Your task to perform on an android device: Clear the cart on newegg. Image 0: 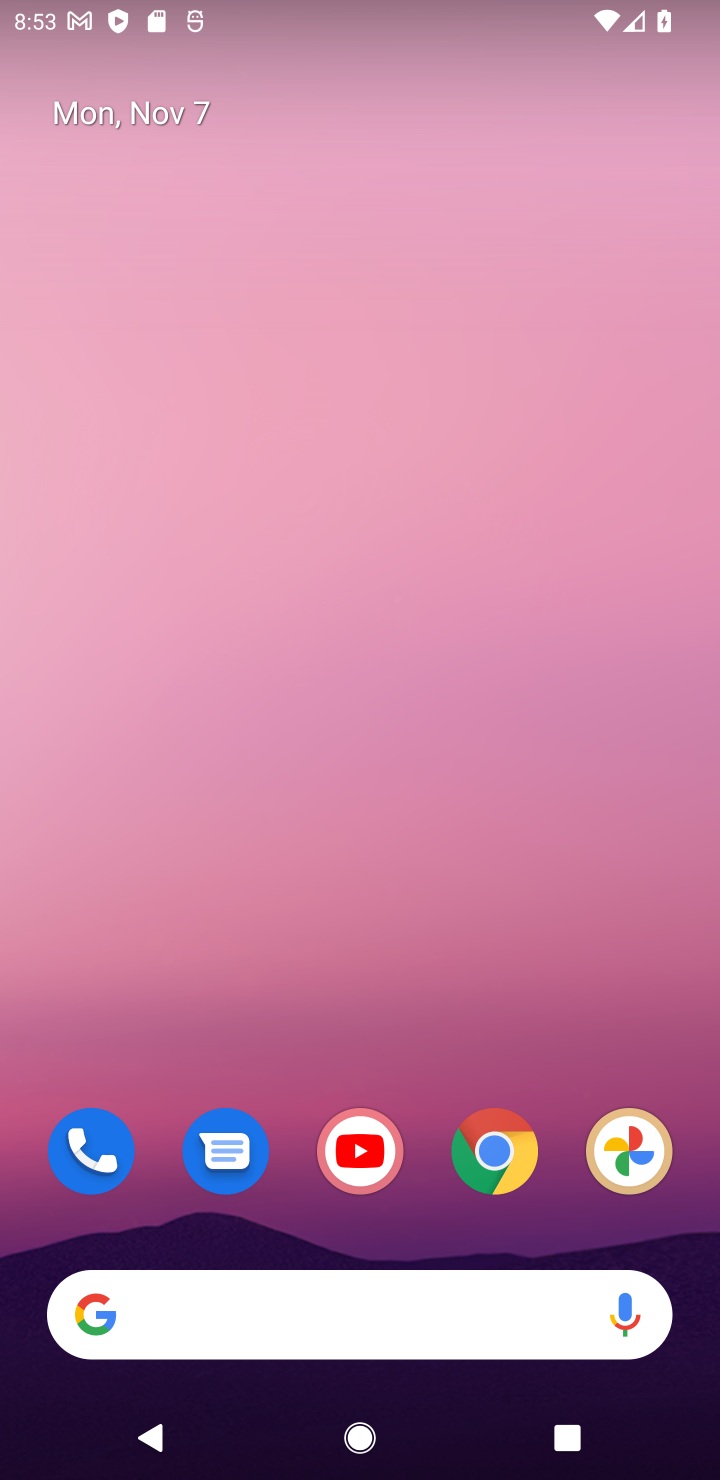
Step 0: click (477, 1153)
Your task to perform on an android device: Clear the cart on newegg. Image 1: 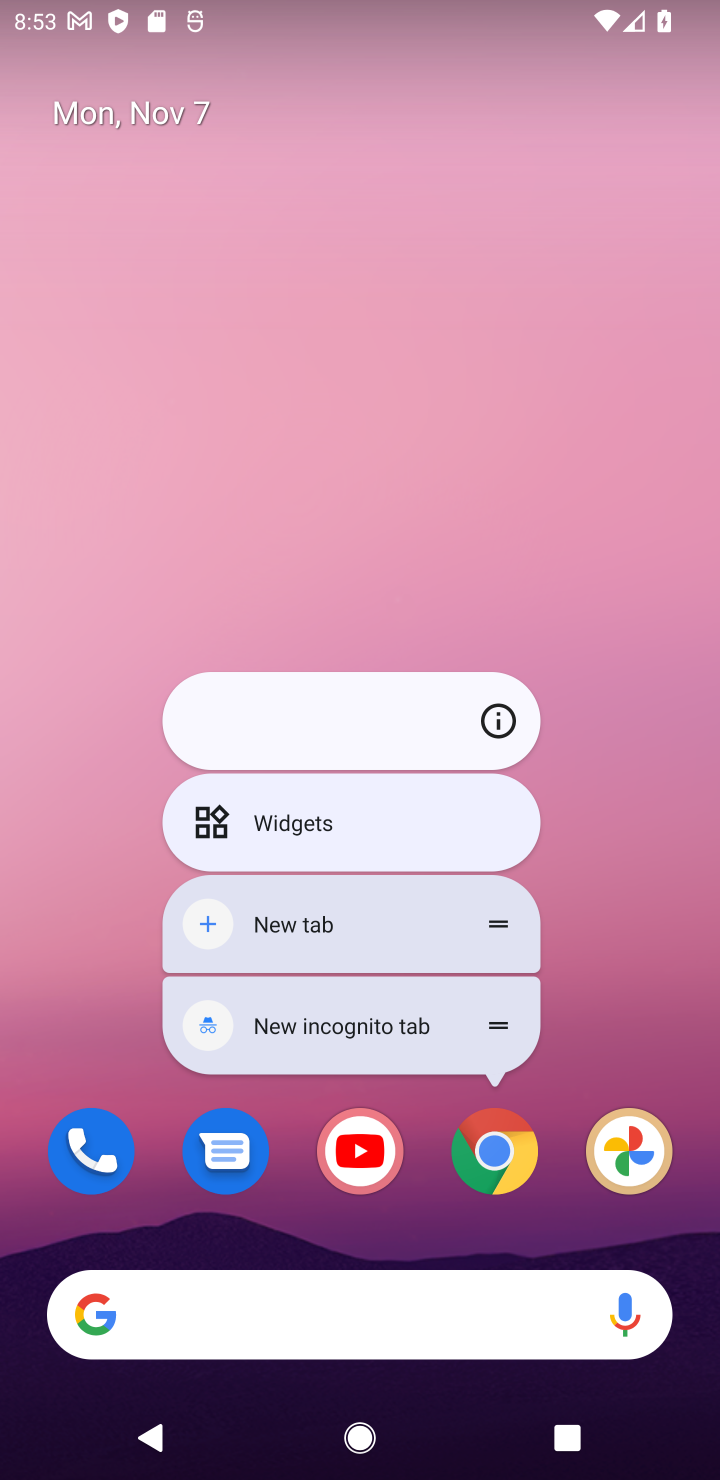
Step 1: click (494, 1153)
Your task to perform on an android device: Clear the cart on newegg. Image 2: 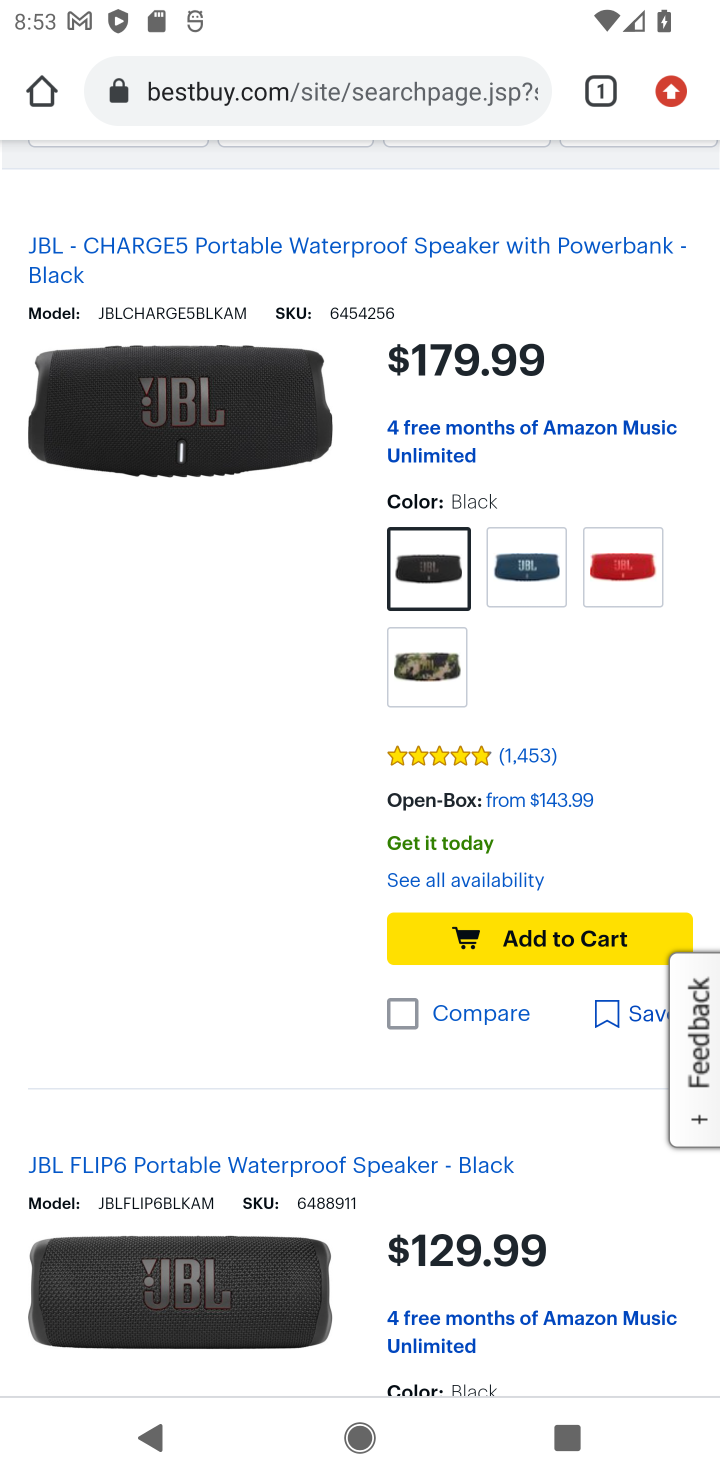
Step 2: click (378, 81)
Your task to perform on an android device: Clear the cart on newegg. Image 3: 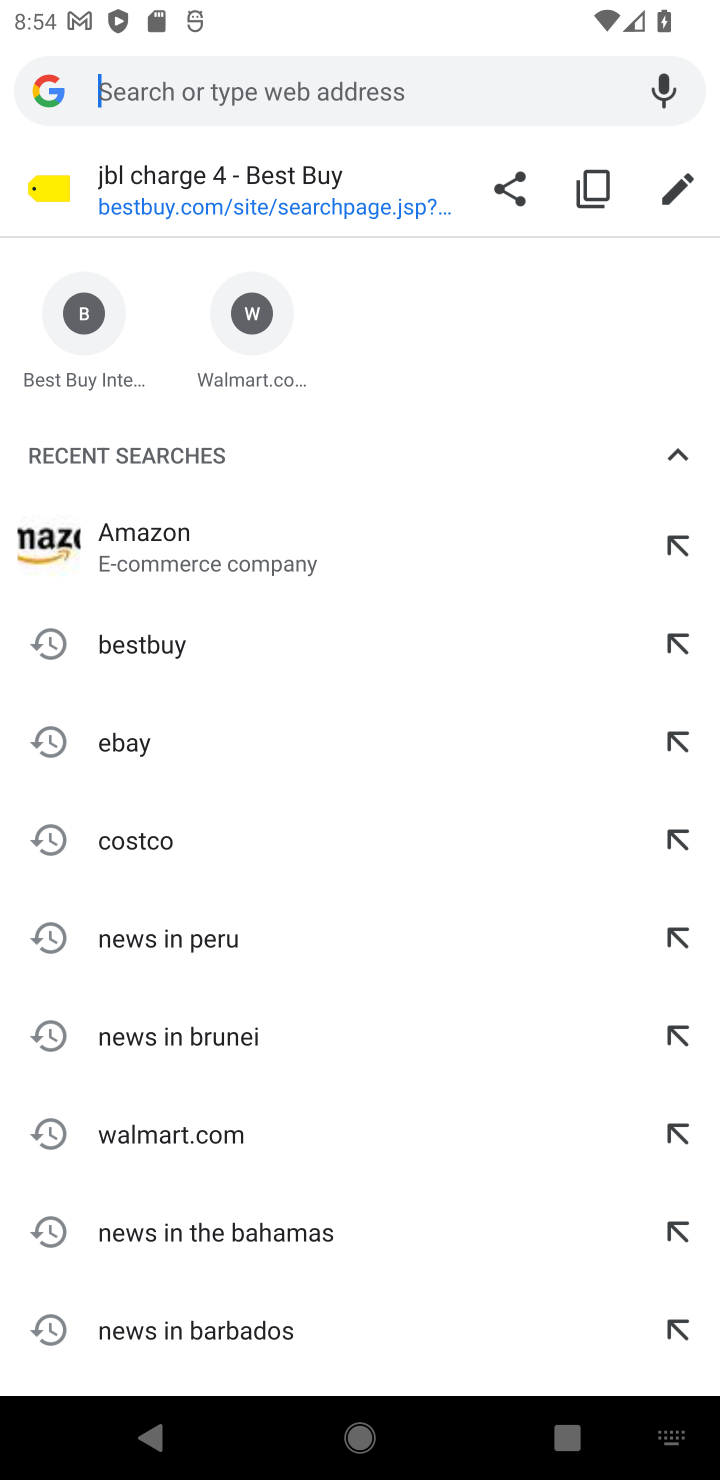
Step 3: drag from (323, 1479) to (719, 1297)
Your task to perform on an android device: Clear the cart on newegg. Image 4: 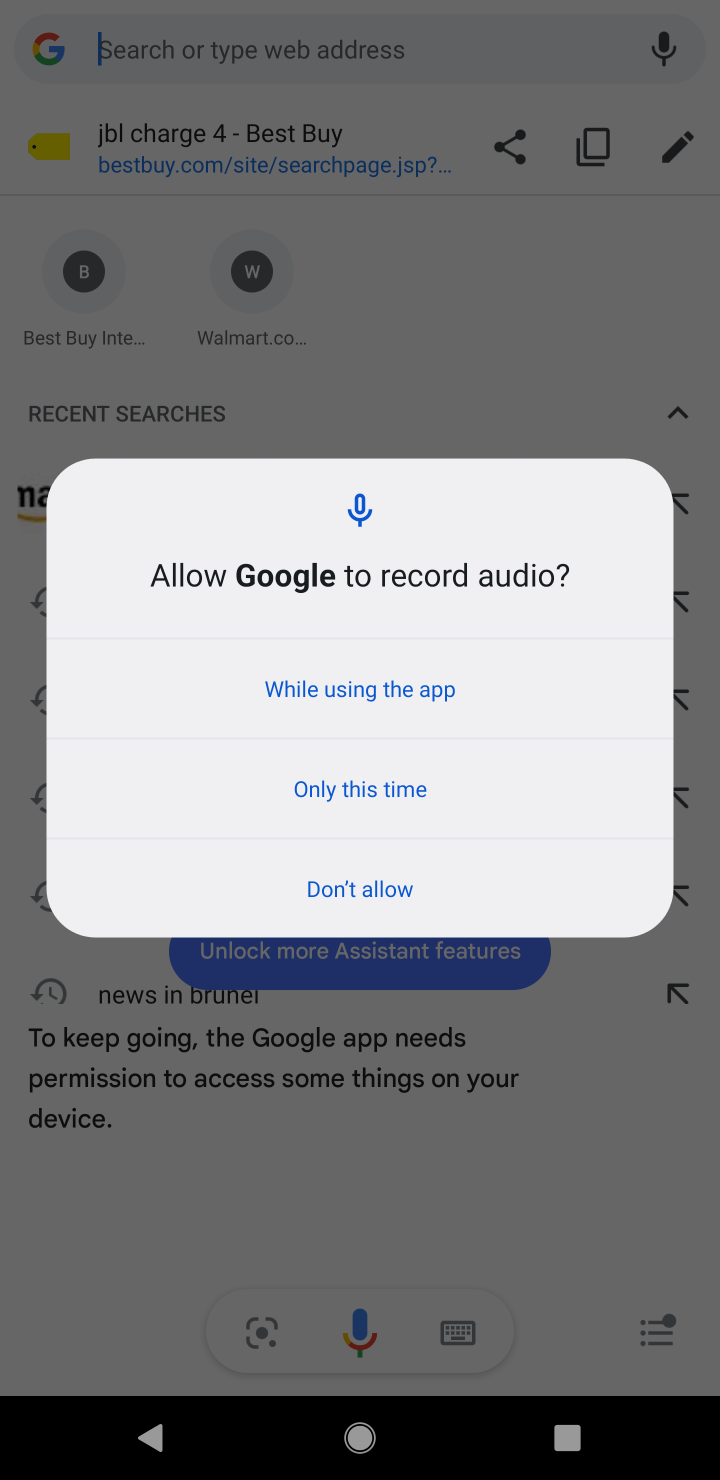
Step 4: click (588, 1075)
Your task to perform on an android device: Clear the cart on newegg. Image 5: 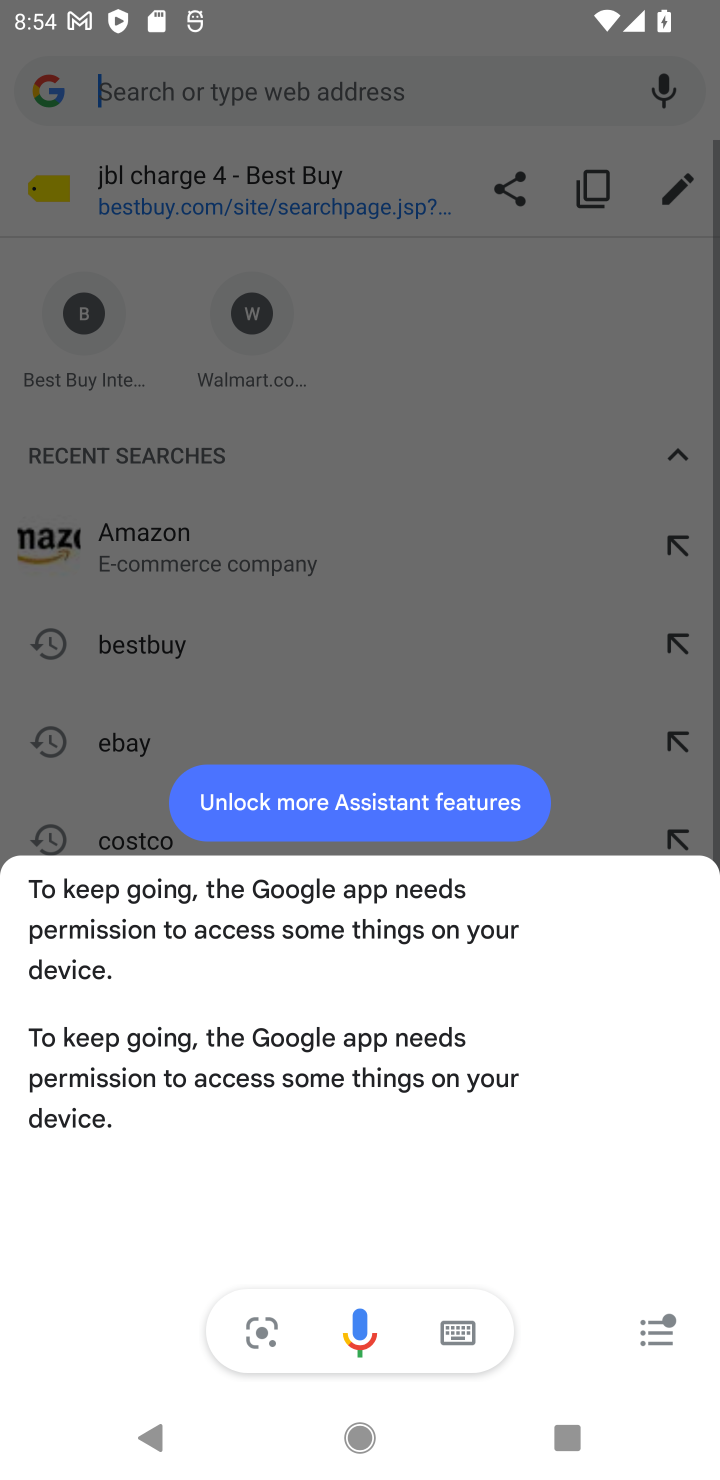
Step 5: click (362, 34)
Your task to perform on an android device: Clear the cart on newegg. Image 6: 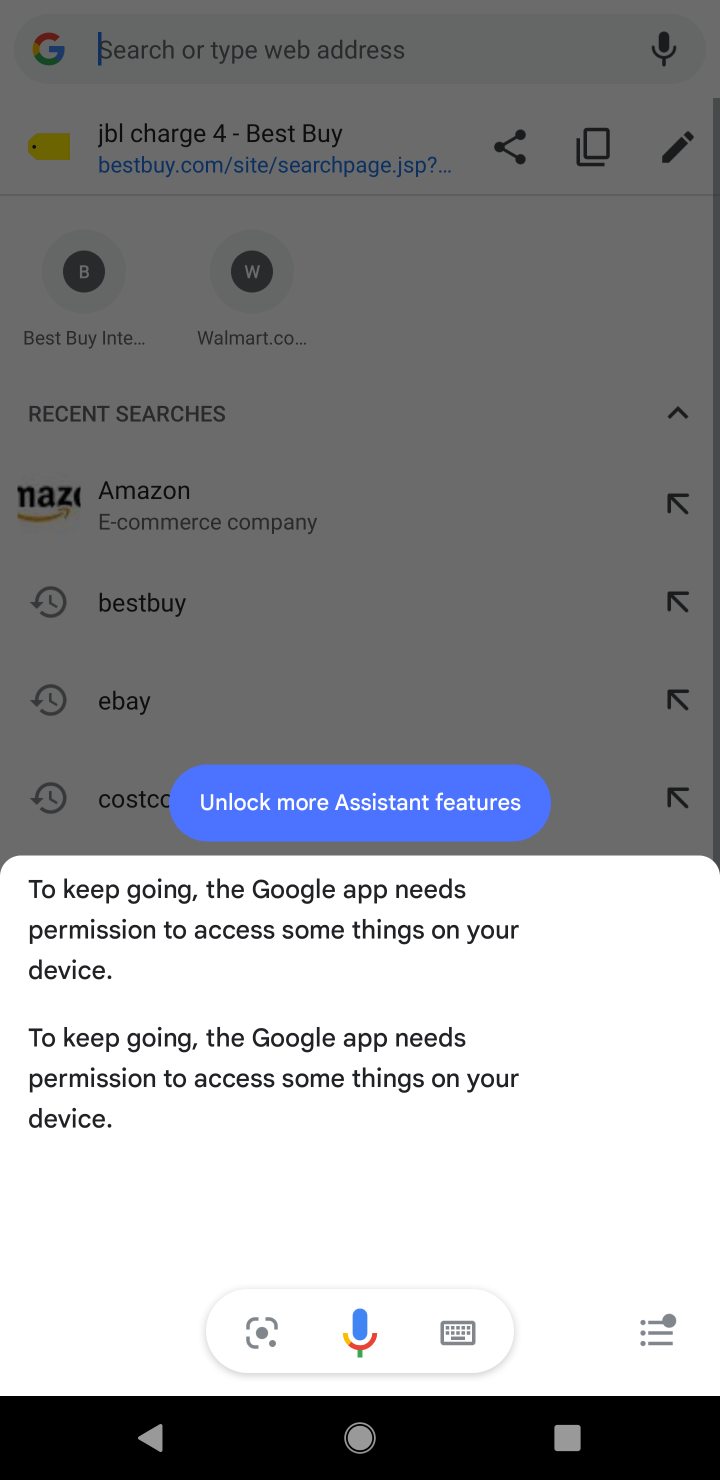
Step 6: click (362, 23)
Your task to perform on an android device: Clear the cart on newegg. Image 7: 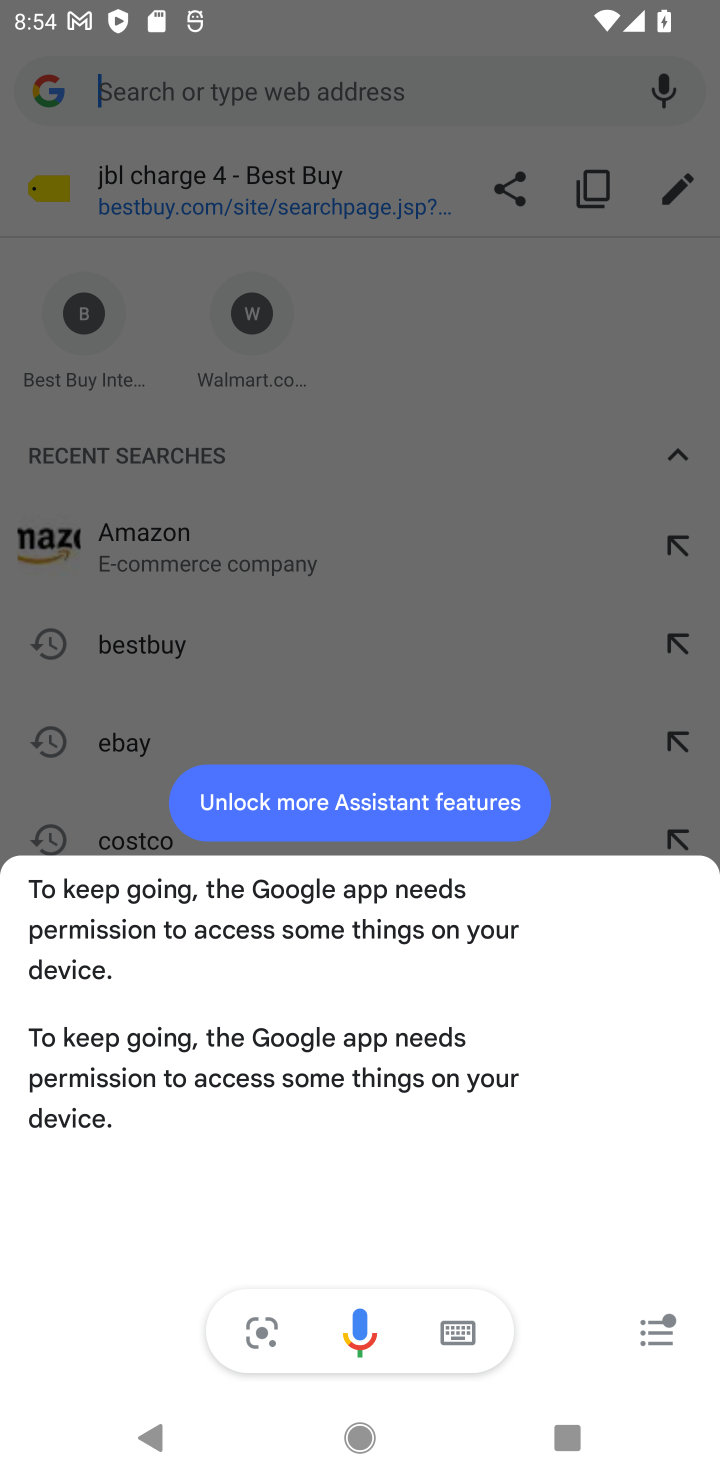
Step 7: drag from (285, 632) to (482, 233)
Your task to perform on an android device: Clear the cart on newegg. Image 8: 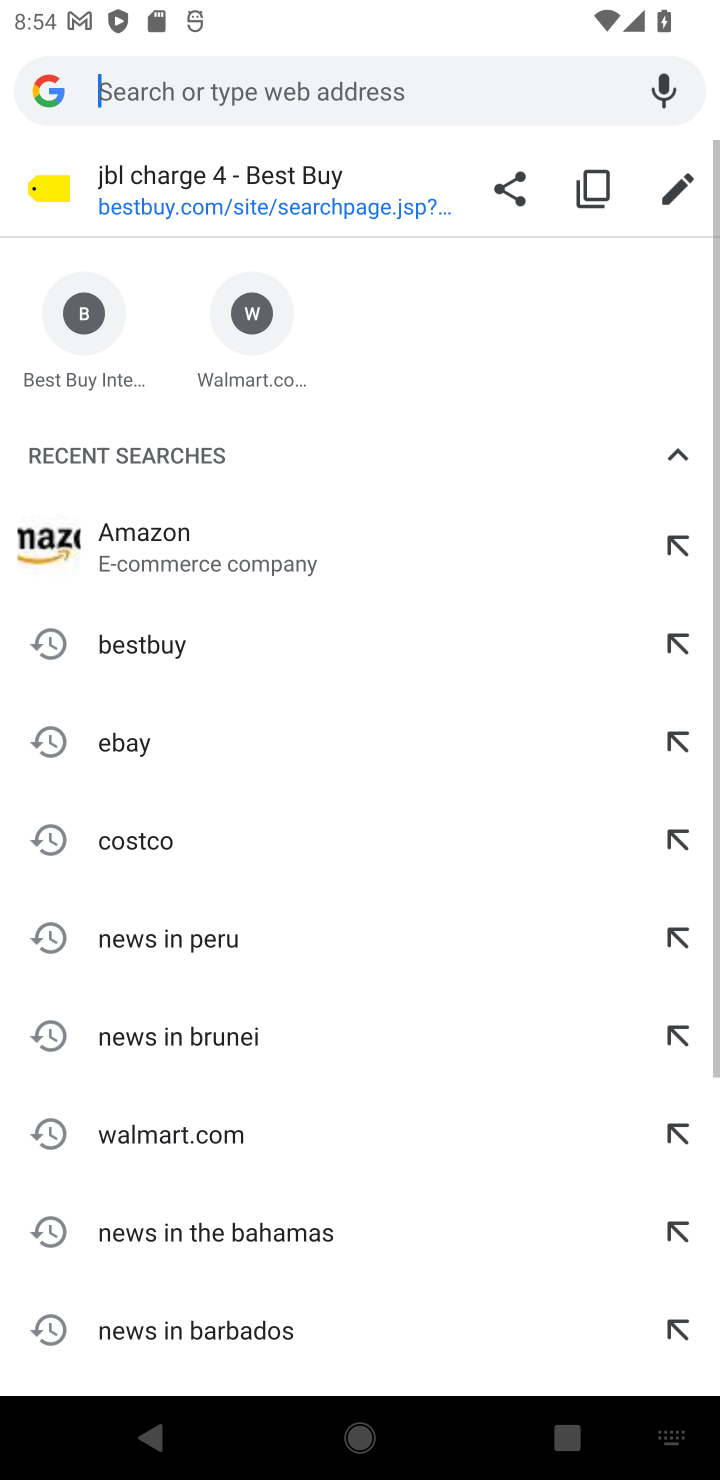
Step 8: click (391, 89)
Your task to perform on an android device: Clear the cart on newegg. Image 9: 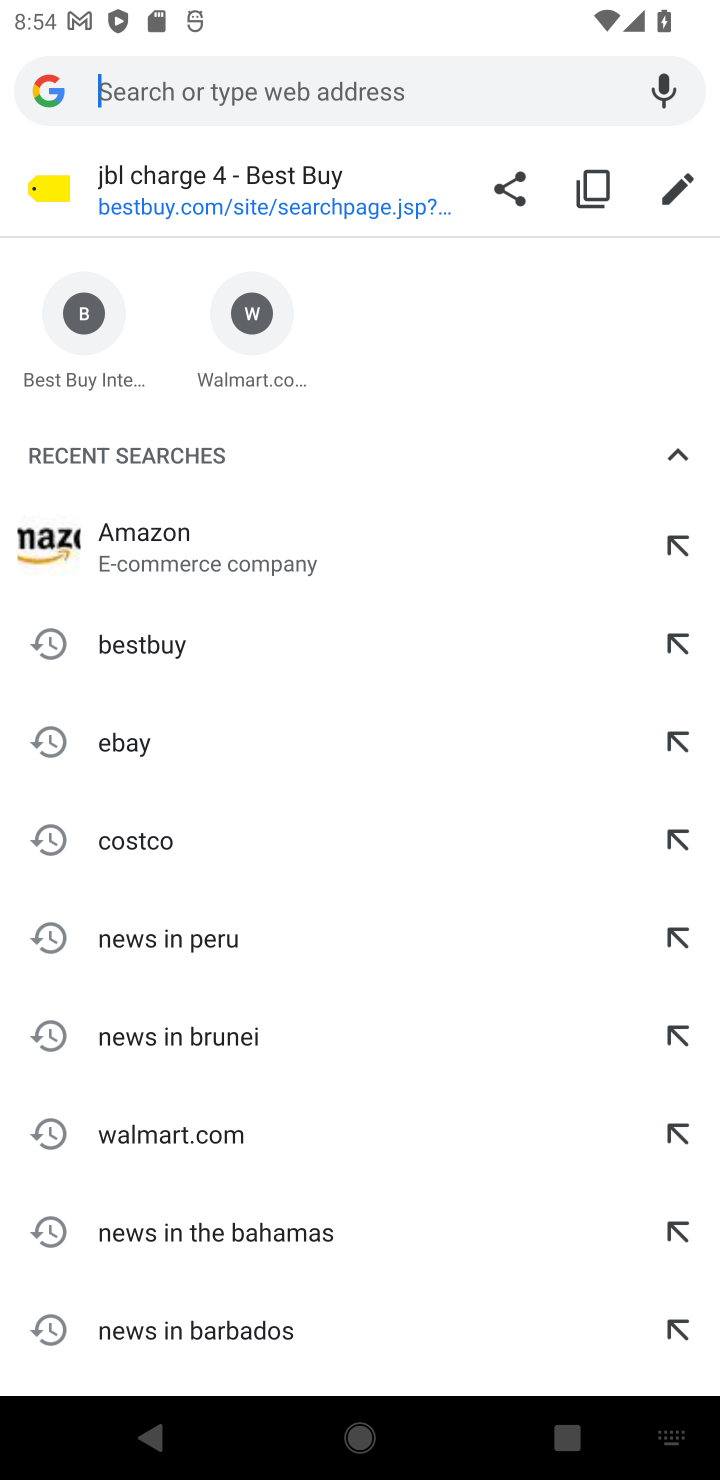
Step 9: type "newegg"
Your task to perform on an android device: Clear the cart on newegg. Image 10: 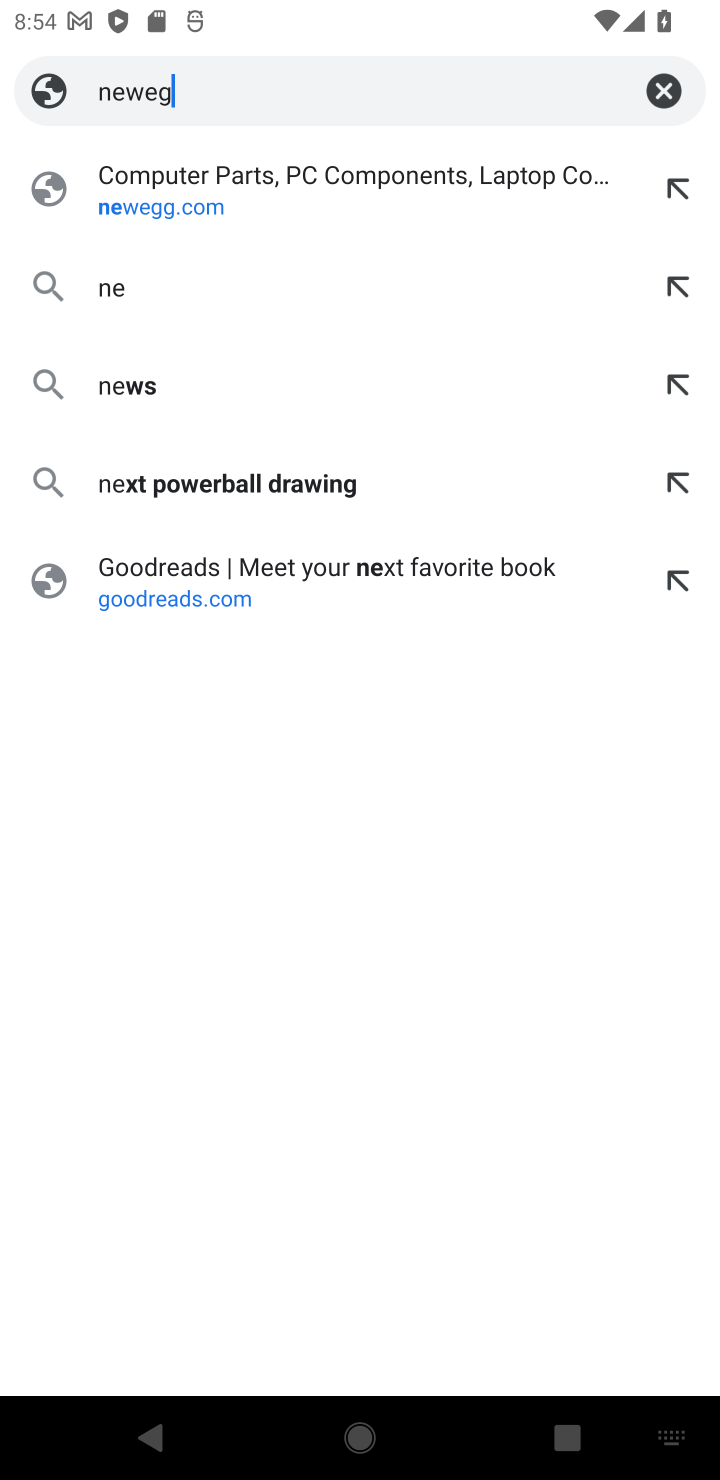
Step 10: press enter
Your task to perform on an android device: Clear the cart on newegg. Image 11: 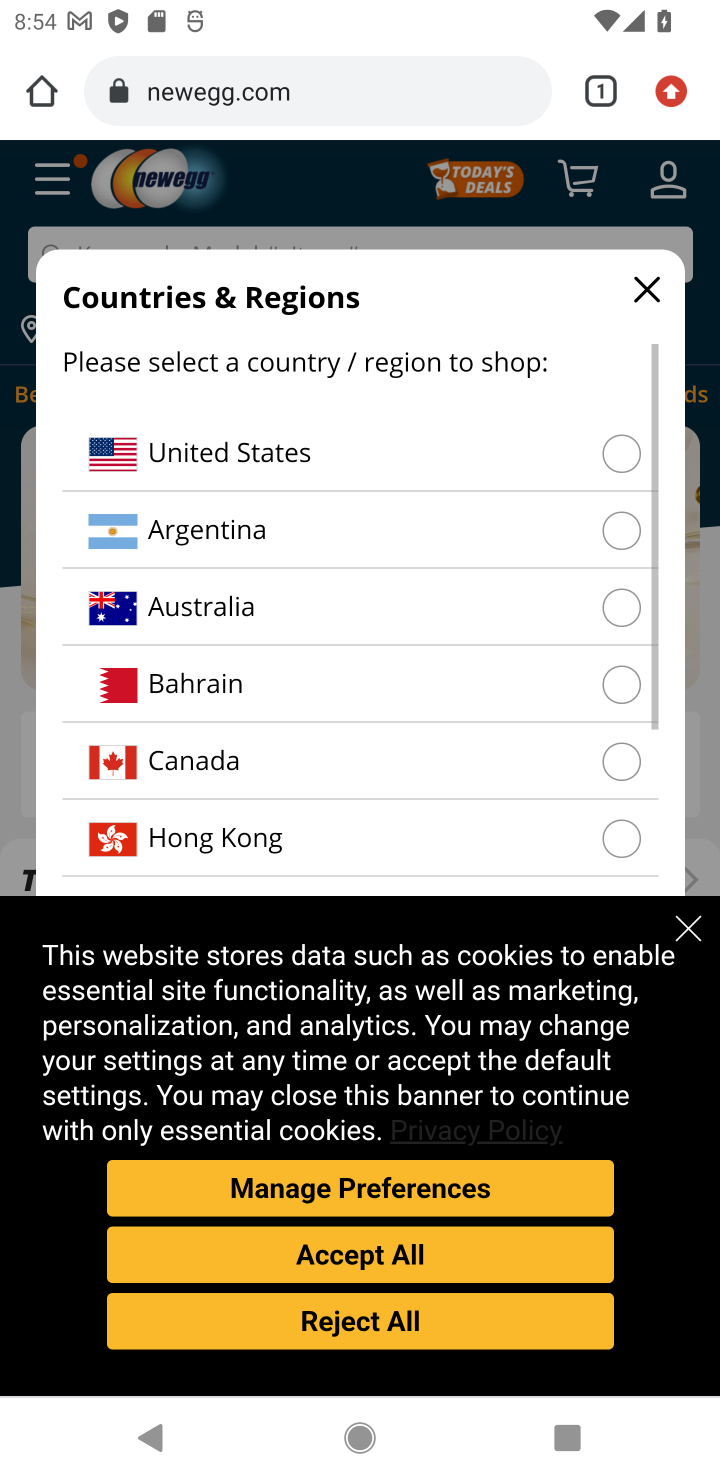
Step 11: click (648, 285)
Your task to perform on an android device: Clear the cart on newegg. Image 12: 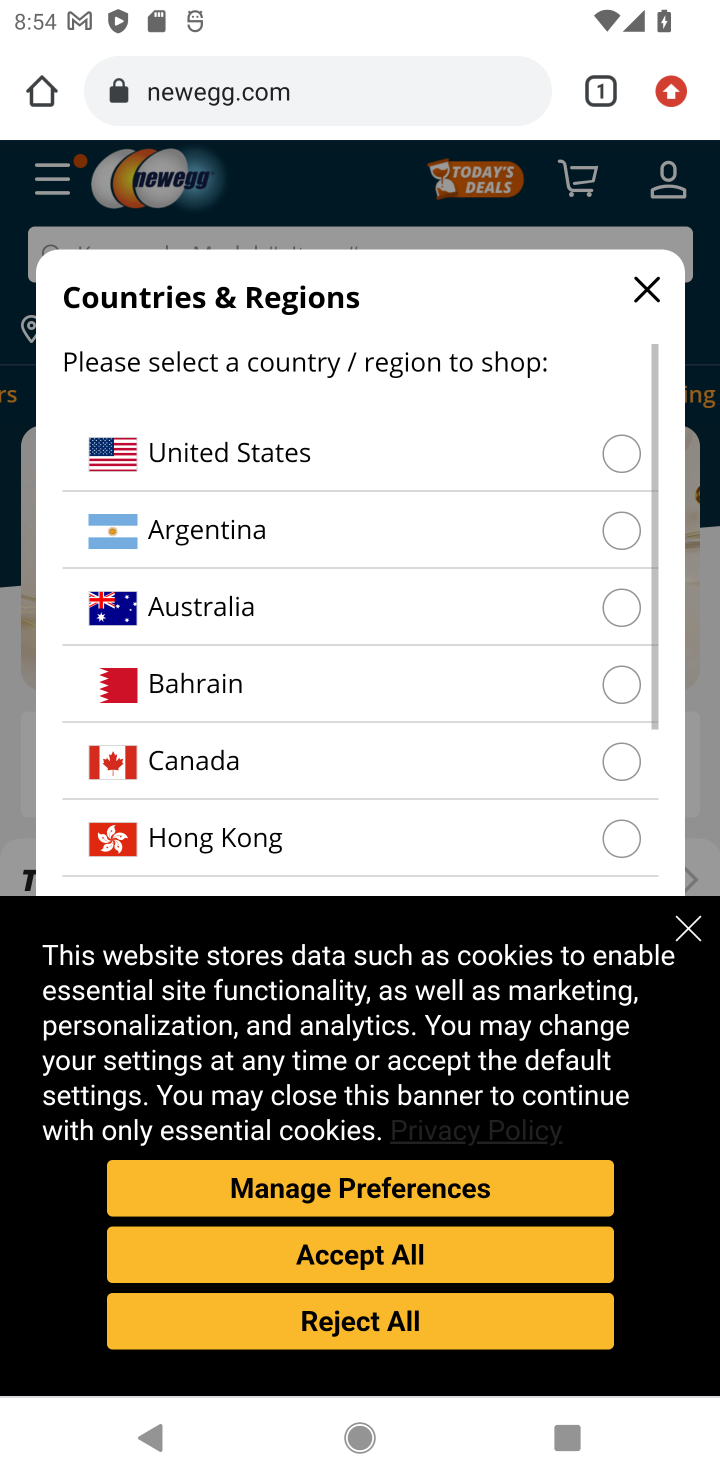
Step 12: click (703, 933)
Your task to perform on an android device: Clear the cart on newegg. Image 13: 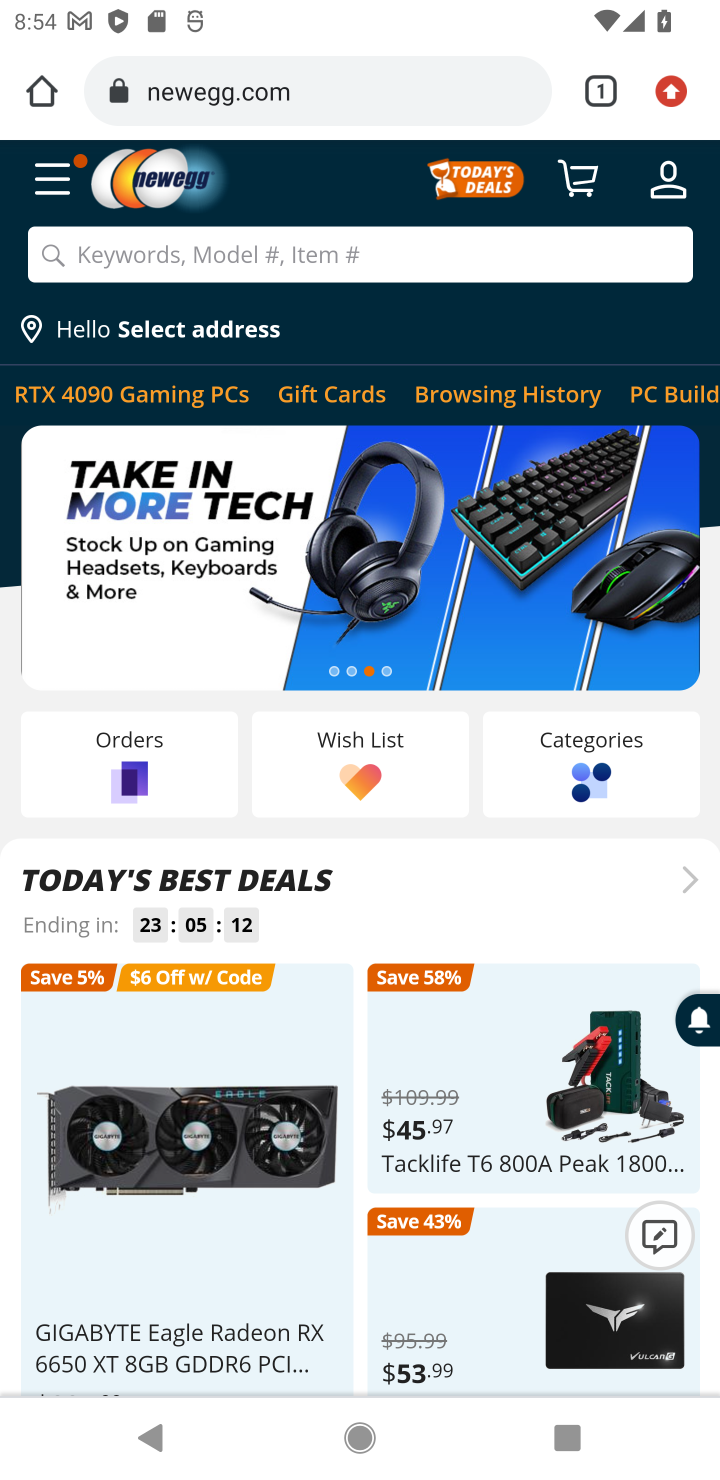
Step 13: click (583, 170)
Your task to perform on an android device: Clear the cart on newegg. Image 14: 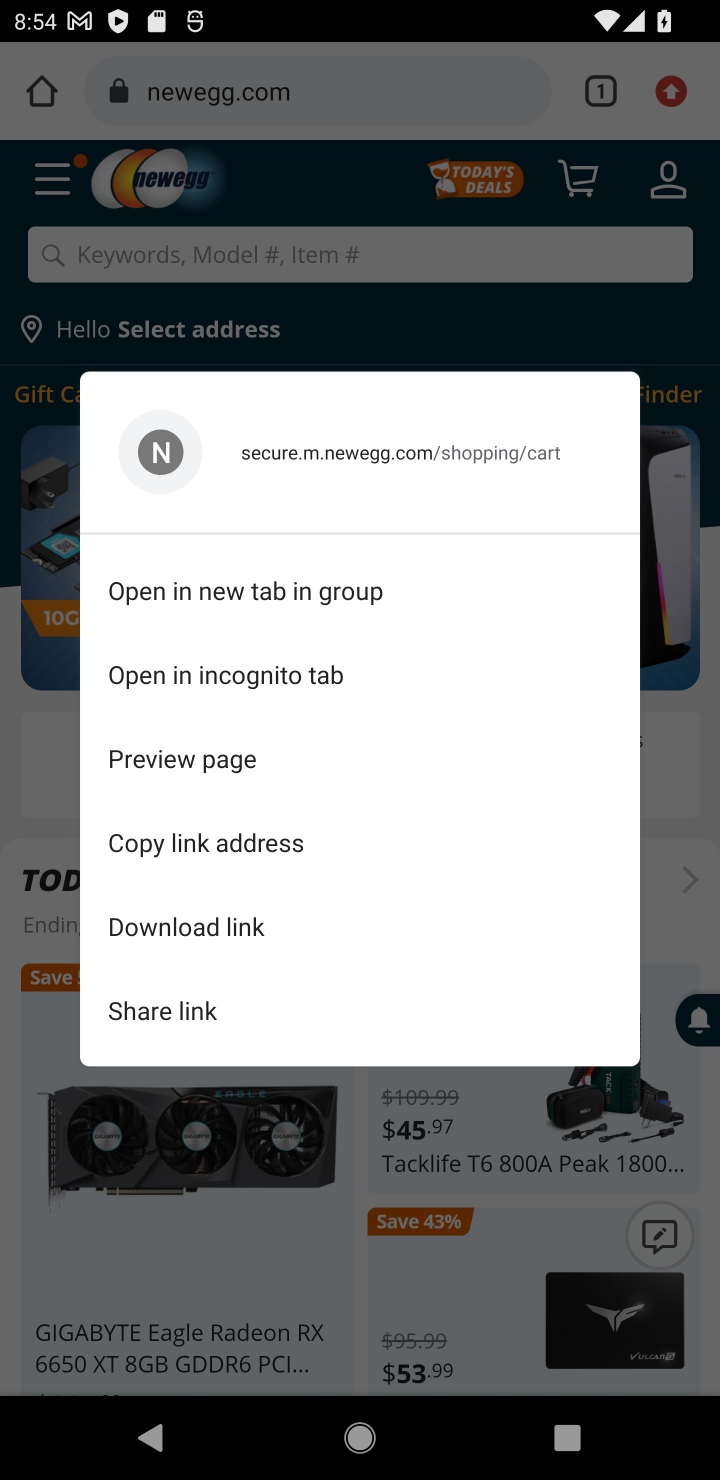
Step 14: click (577, 164)
Your task to perform on an android device: Clear the cart on newegg. Image 15: 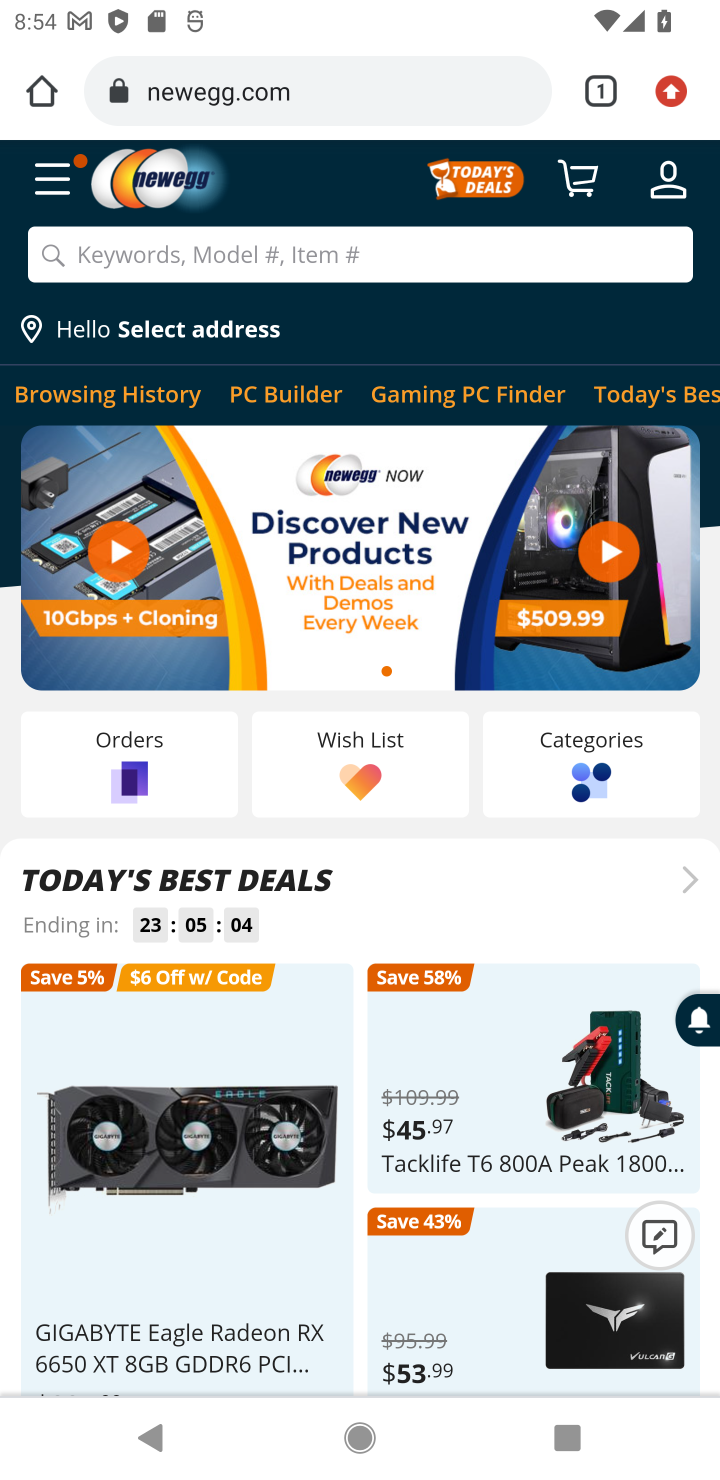
Step 15: click (582, 186)
Your task to perform on an android device: Clear the cart on newegg. Image 16: 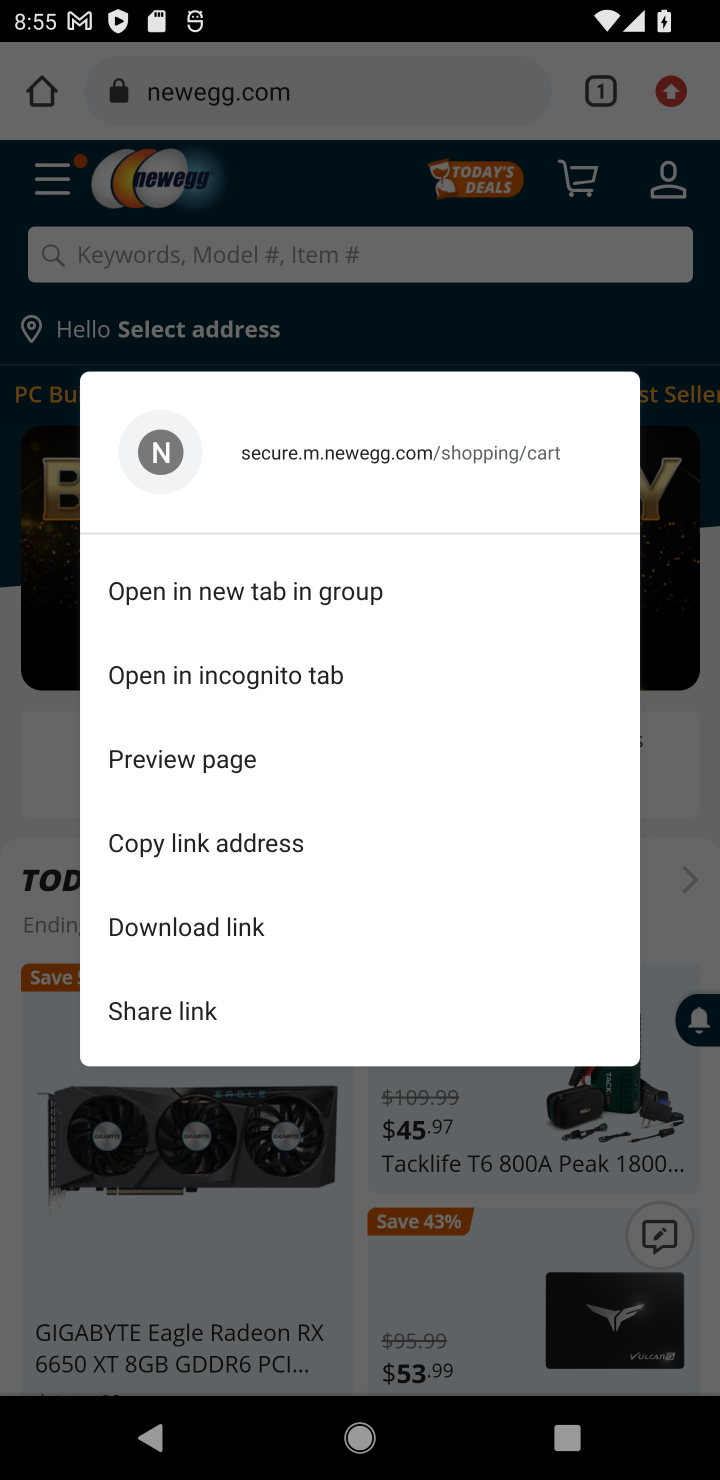
Step 16: click (572, 184)
Your task to perform on an android device: Clear the cart on newegg. Image 17: 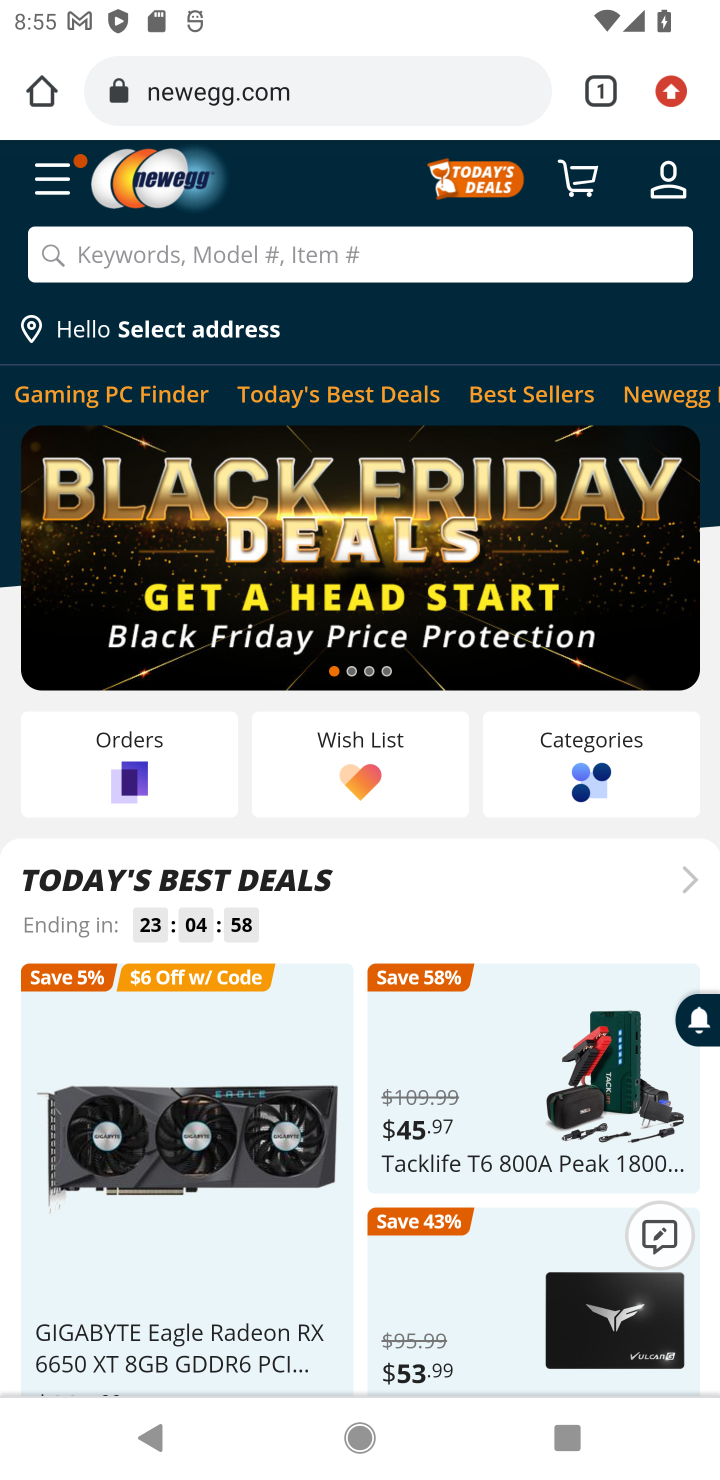
Step 17: click (559, 171)
Your task to perform on an android device: Clear the cart on newegg. Image 18: 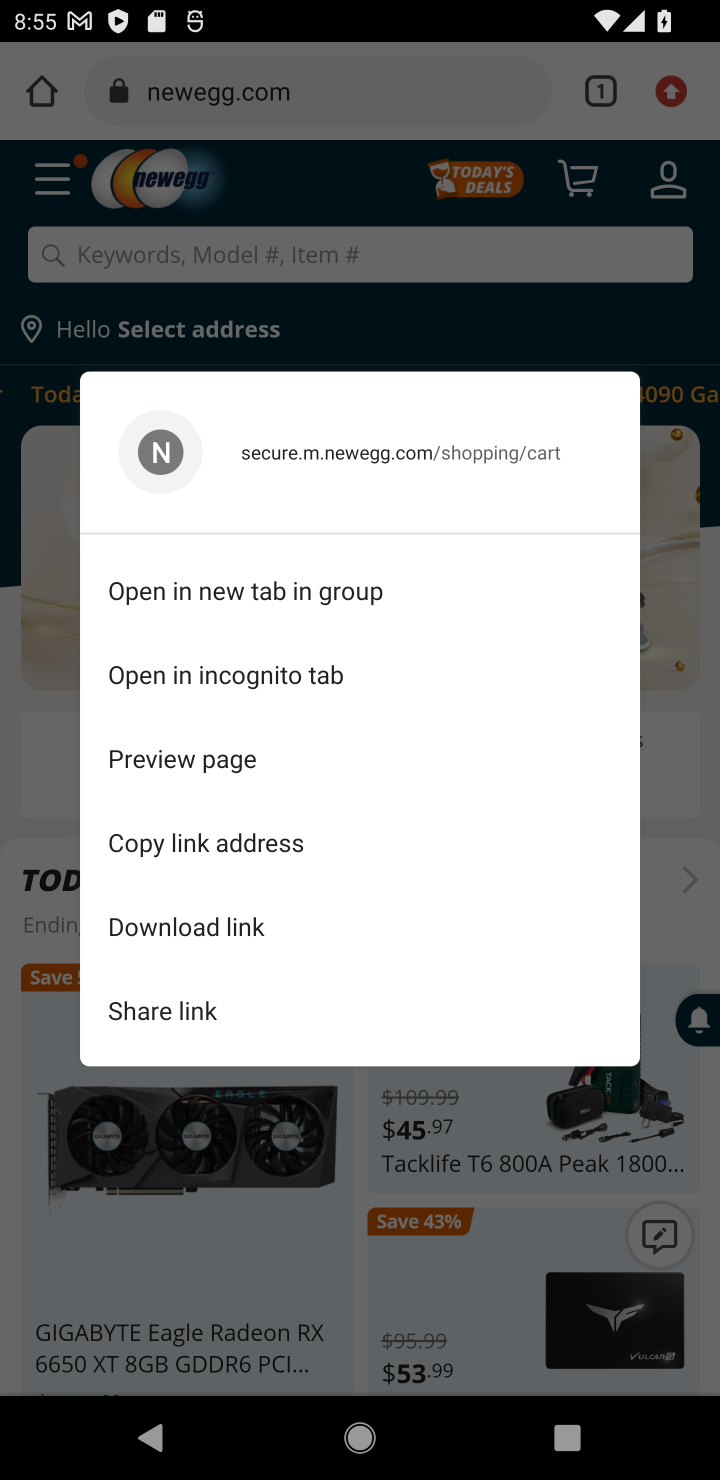
Step 18: click (579, 175)
Your task to perform on an android device: Clear the cart on newegg. Image 19: 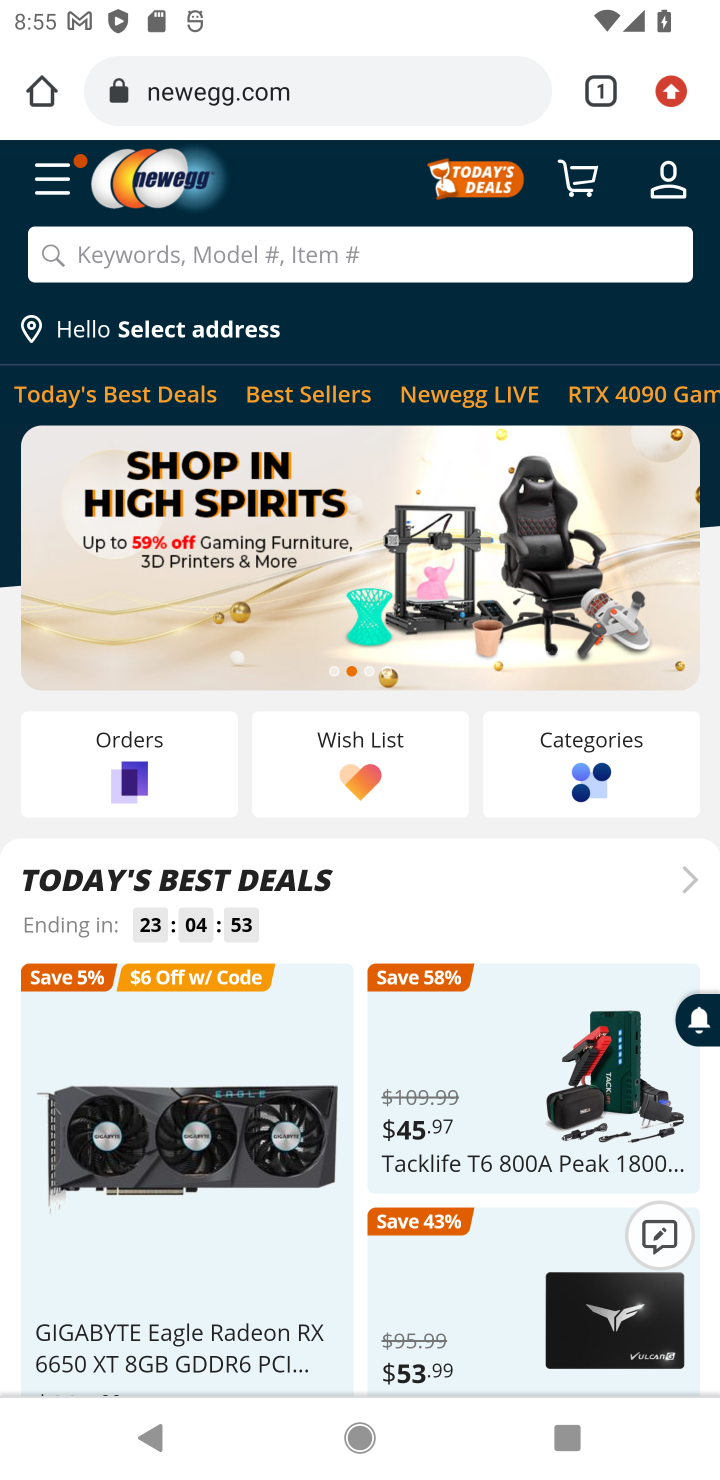
Step 19: click (587, 171)
Your task to perform on an android device: Clear the cart on newegg. Image 20: 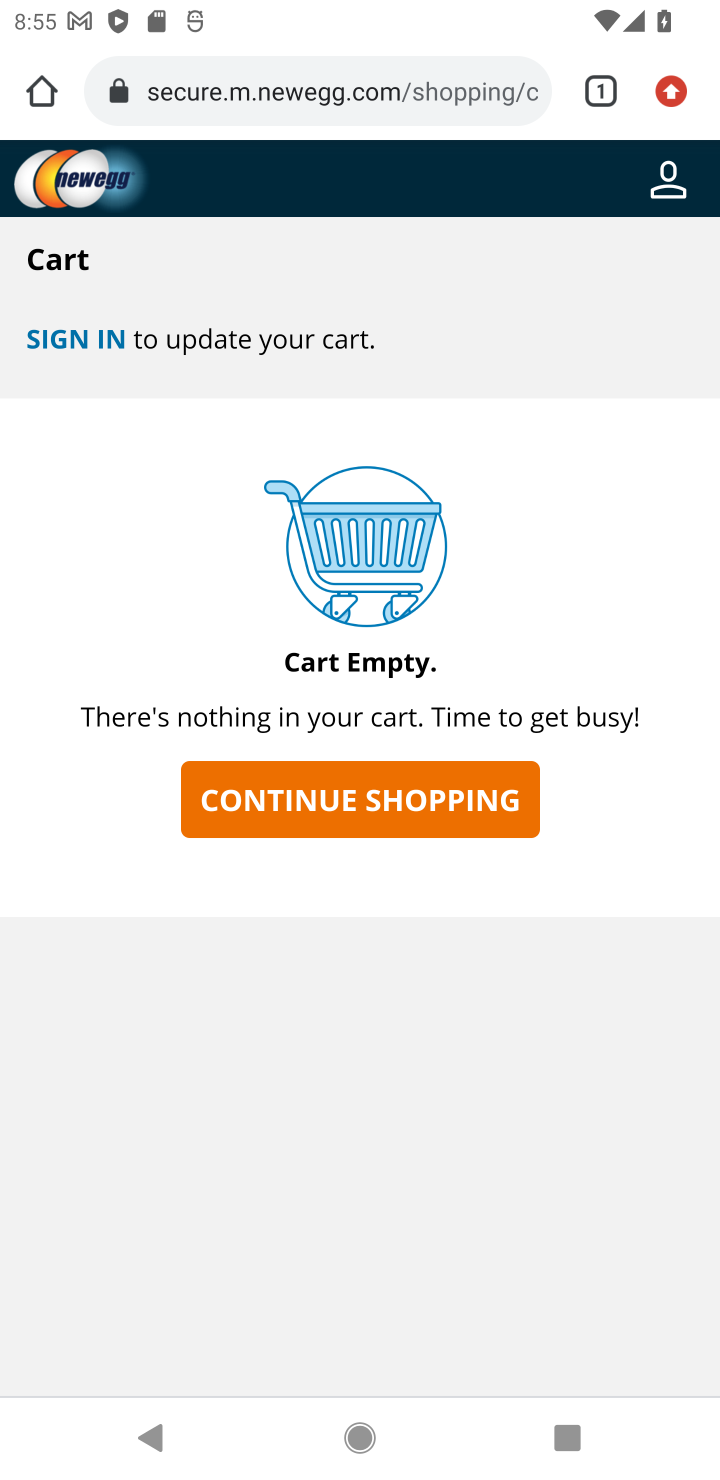
Step 20: task complete